Your task to perform on an android device: change the clock display to digital Image 0: 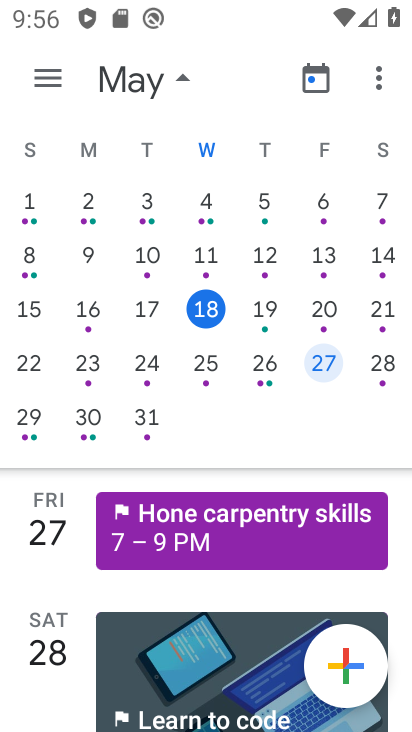
Step 0: press home button
Your task to perform on an android device: change the clock display to digital Image 1: 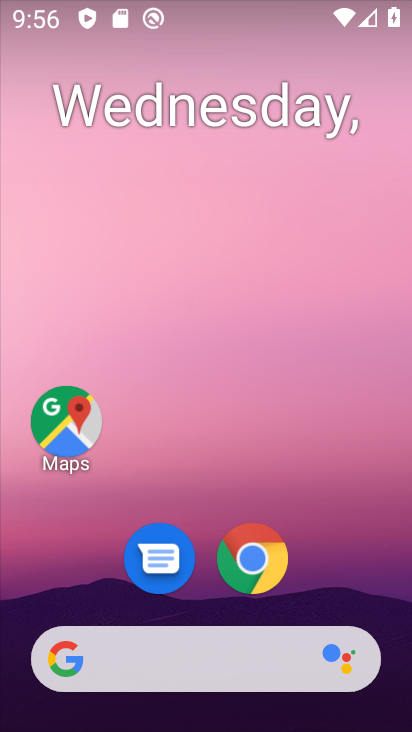
Step 1: drag from (37, 574) to (347, 123)
Your task to perform on an android device: change the clock display to digital Image 2: 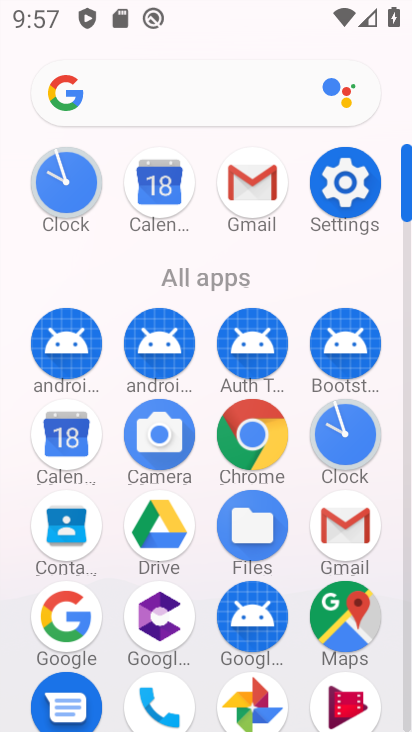
Step 2: click (328, 436)
Your task to perform on an android device: change the clock display to digital Image 3: 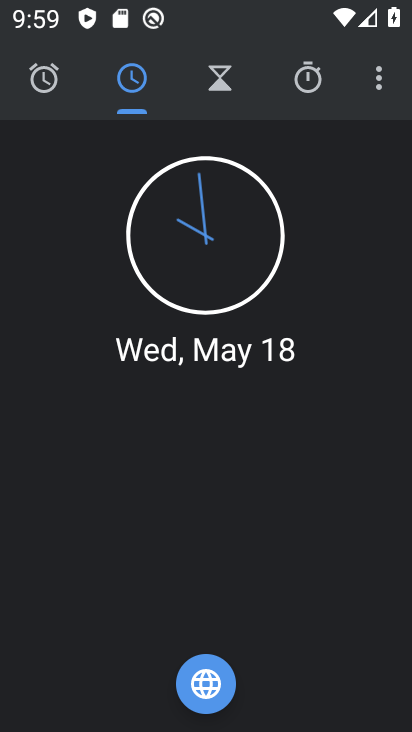
Step 3: click (377, 76)
Your task to perform on an android device: change the clock display to digital Image 4: 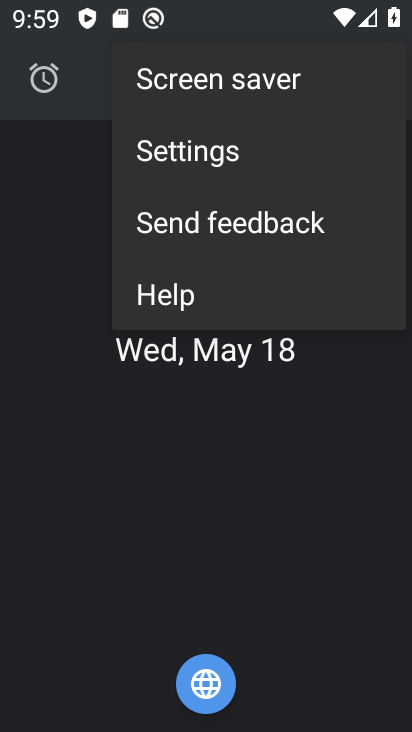
Step 4: click (251, 153)
Your task to perform on an android device: change the clock display to digital Image 5: 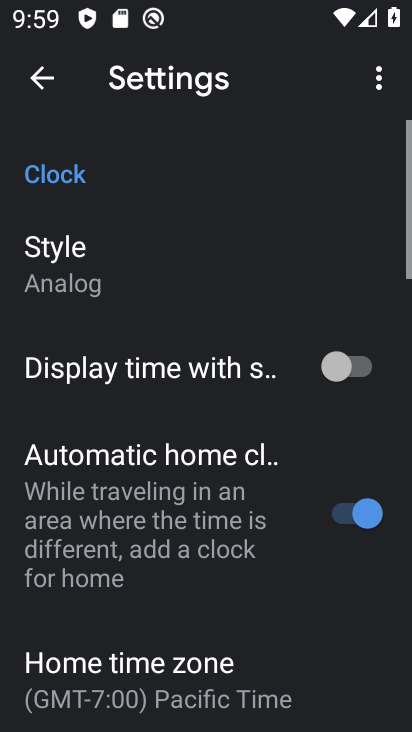
Step 5: click (152, 285)
Your task to perform on an android device: change the clock display to digital Image 6: 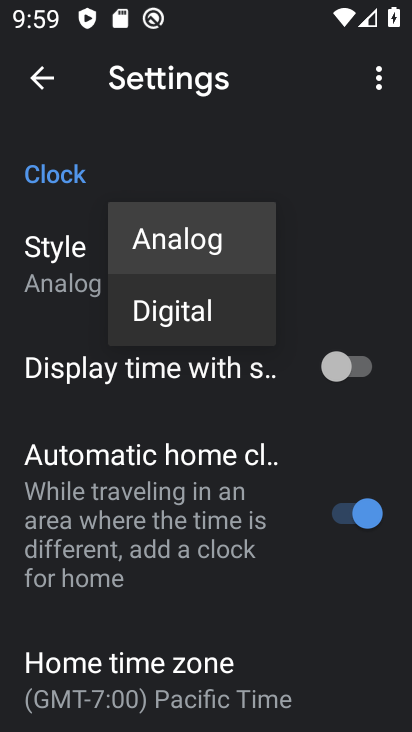
Step 6: click (137, 305)
Your task to perform on an android device: change the clock display to digital Image 7: 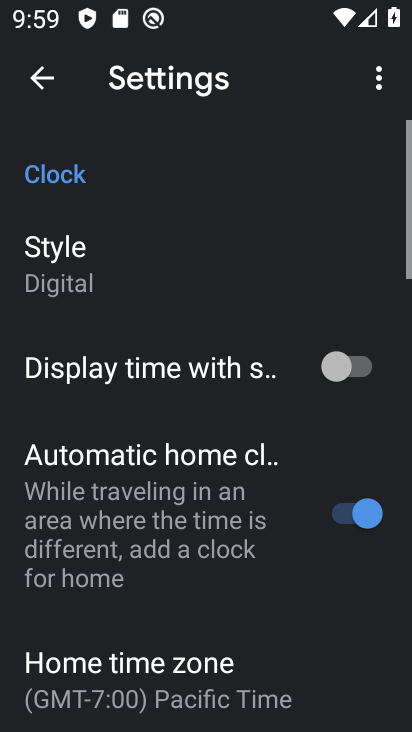
Step 7: task complete